Your task to perform on an android device: What is the news today? Image 0: 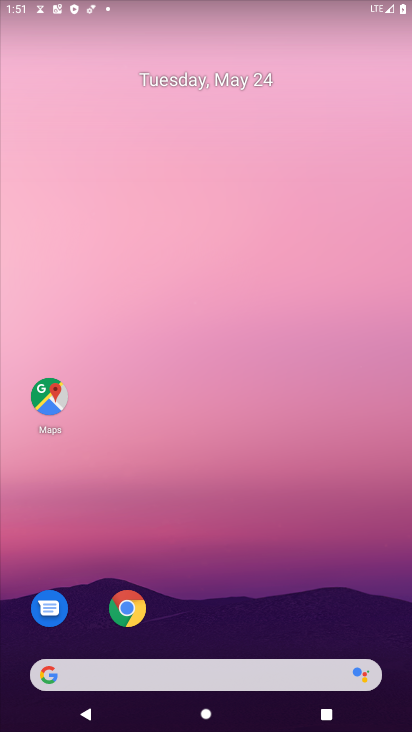
Step 0: drag from (248, 620) to (232, 290)
Your task to perform on an android device: What is the news today? Image 1: 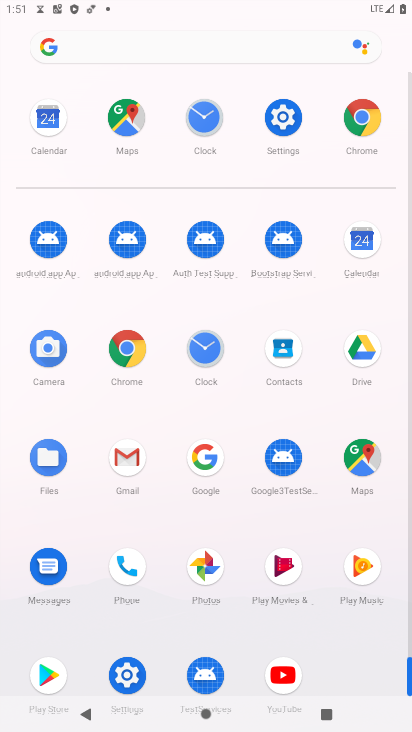
Step 1: click (365, 116)
Your task to perform on an android device: What is the news today? Image 2: 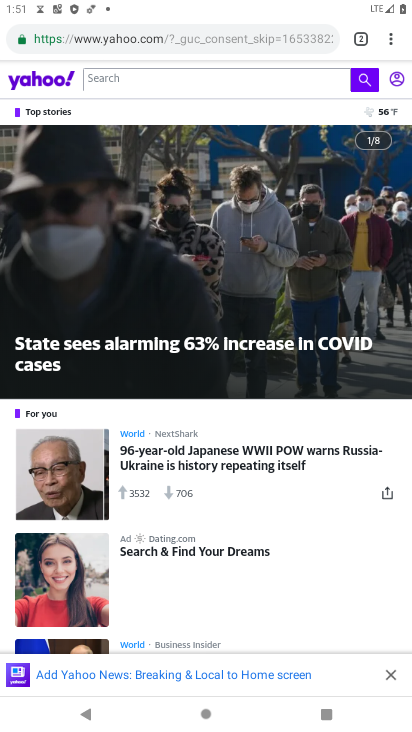
Step 2: click (275, 34)
Your task to perform on an android device: What is the news today? Image 3: 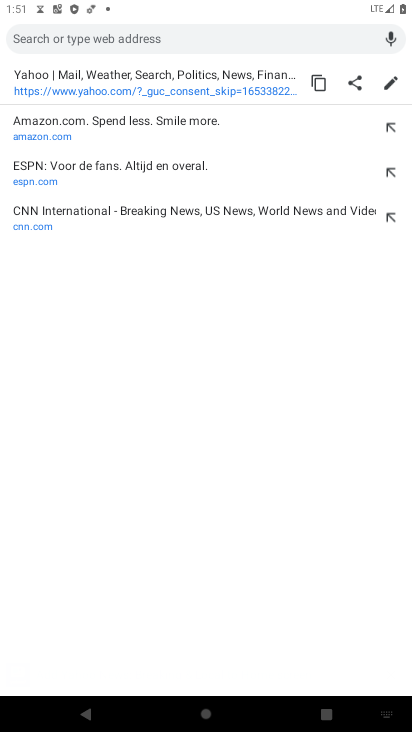
Step 3: type "What is the news today?"
Your task to perform on an android device: What is the news today? Image 4: 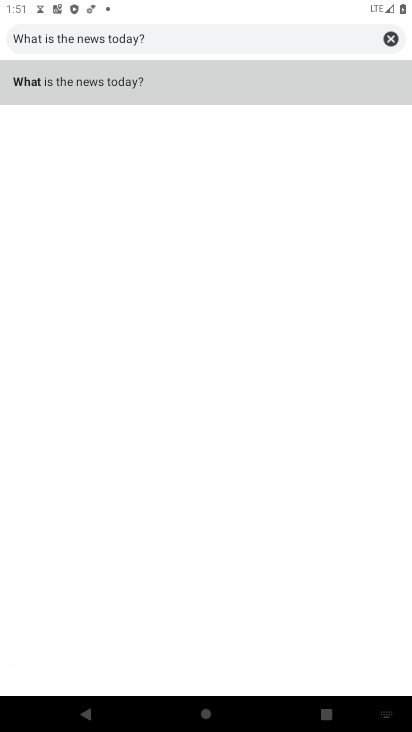
Step 4: click (85, 78)
Your task to perform on an android device: What is the news today? Image 5: 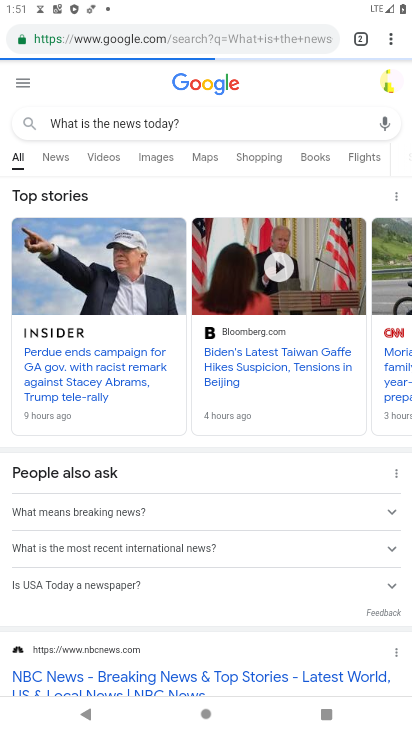
Step 5: task complete